Your task to perform on an android device: change the clock display to digital Image 0: 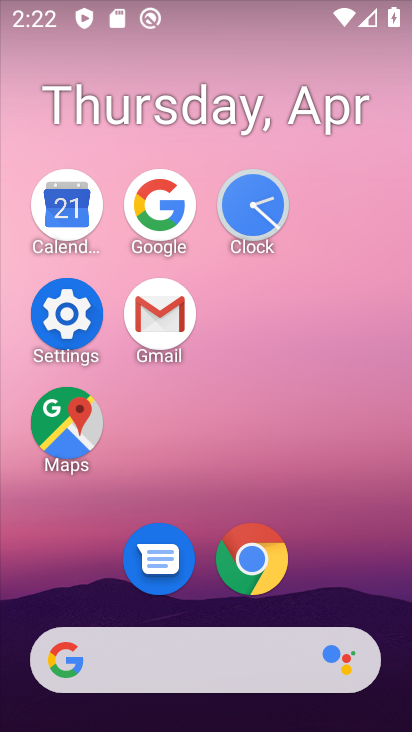
Step 0: click (251, 232)
Your task to perform on an android device: change the clock display to digital Image 1: 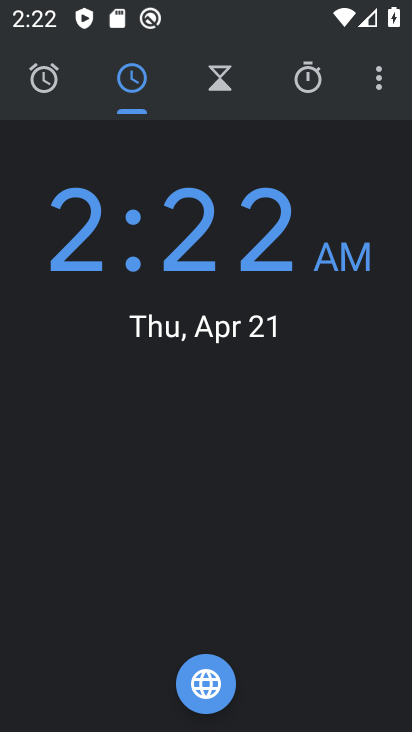
Step 1: click (378, 87)
Your task to perform on an android device: change the clock display to digital Image 2: 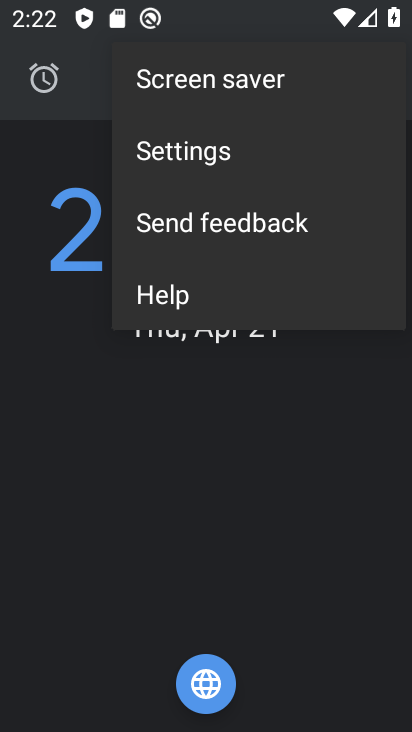
Step 2: click (262, 173)
Your task to perform on an android device: change the clock display to digital Image 3: 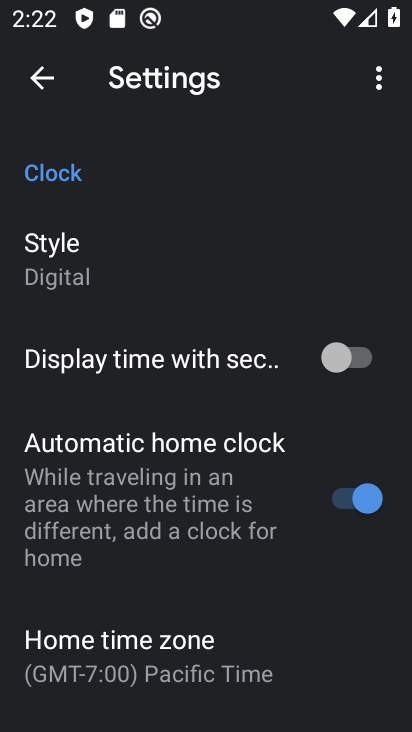
Step 3: task complete